Your task to perform on an android device: turn off picture-in-picture Image 0: 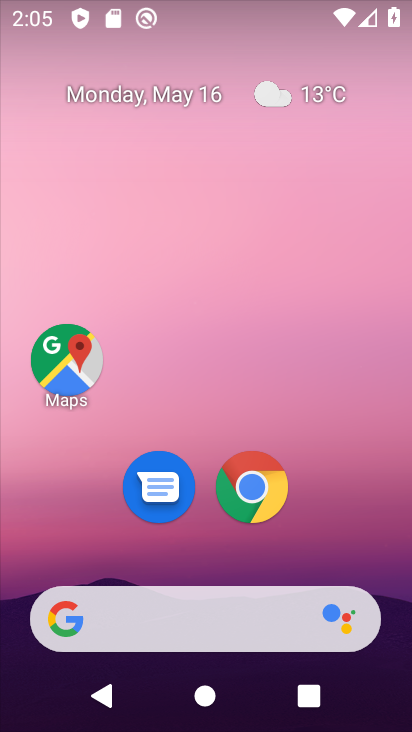
Step 0: drag from (307, 497) to (100, 81)
Your task to perform on an android device: turn off picture-in-picture Image 1: 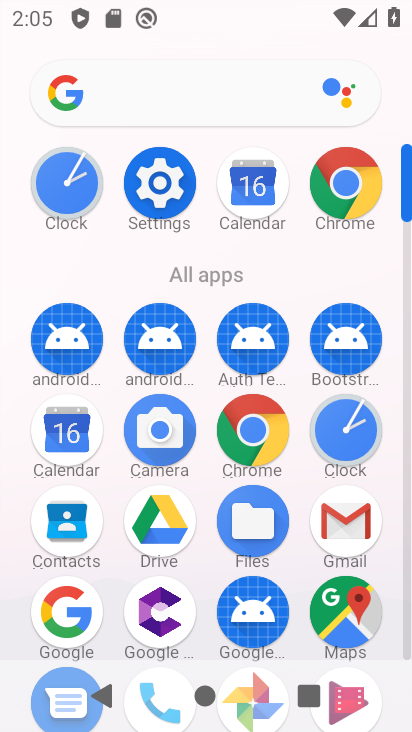
Step 1: click (158, 196)
Your task to perform on an android device: turn off picture-in-picture Image 2: 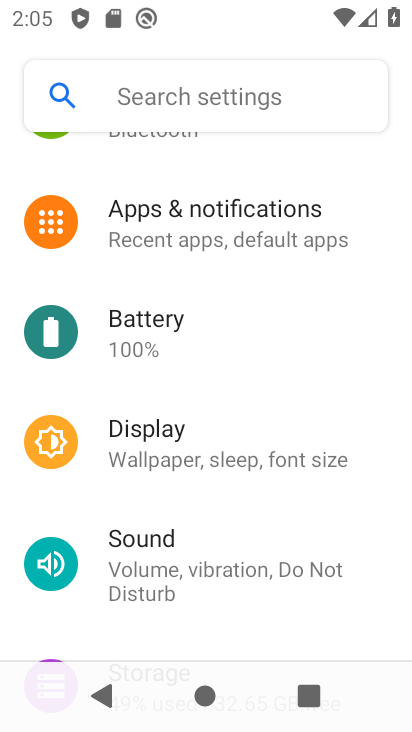
Step 2: click (275, 239)
Your task to perform on an android device: turn off picture-in-picture Image 3: 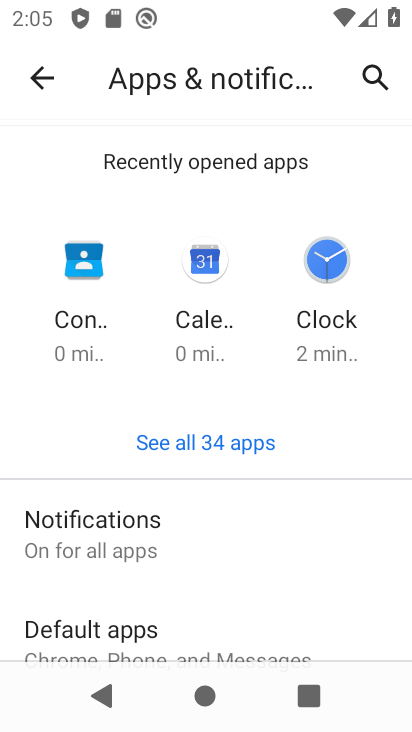
Step 3: click (111, 547)
Your task to perform on an android device: turn off picture-in-picture Image 4: 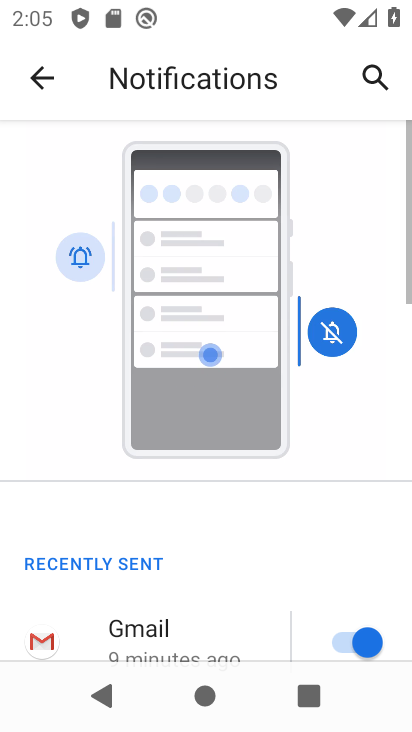
Step 4: drag from (124, 623) to (112, 297)
Your task to perform on an android device: turn off picture-in-picture Image 5: 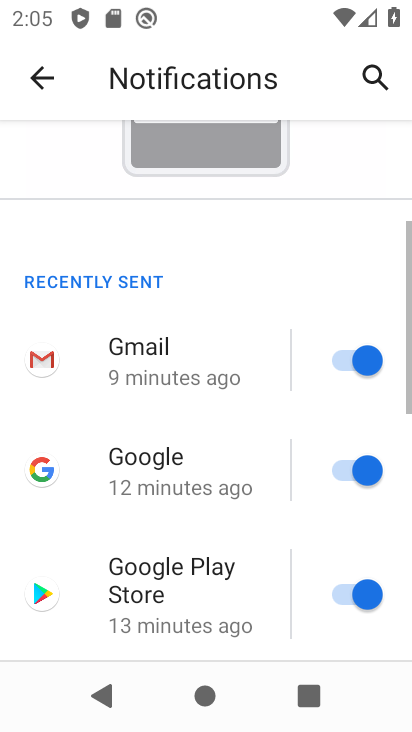
Step 5: drag from (110, 251) to (109, 208)
Your task to perform on an android device: turn off picture-in-picture Image 6: 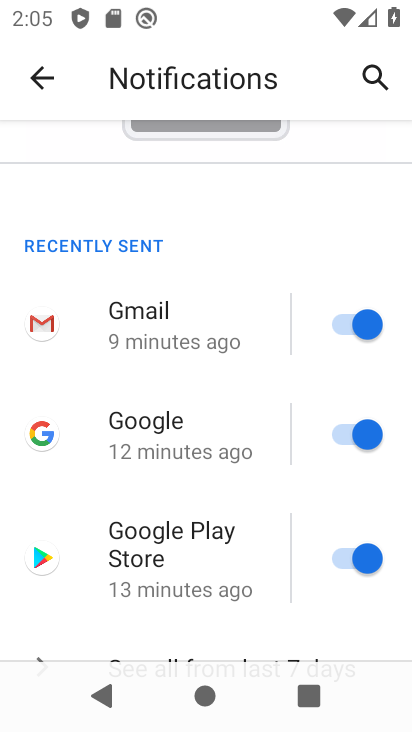
Step 6: drag from (80, 634) to (91, 123)
Your task to perform on an android device: turn off picture-in-picture Image 7: 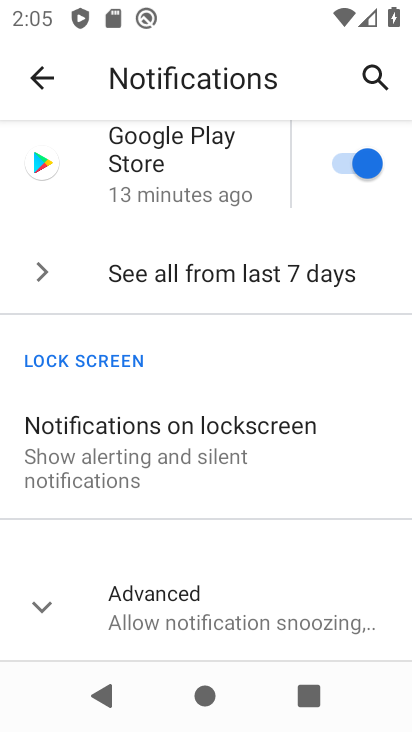
Step 7: click (46, 79)
Your task to perform on an android device: turn off picture-in-picture Image 8: 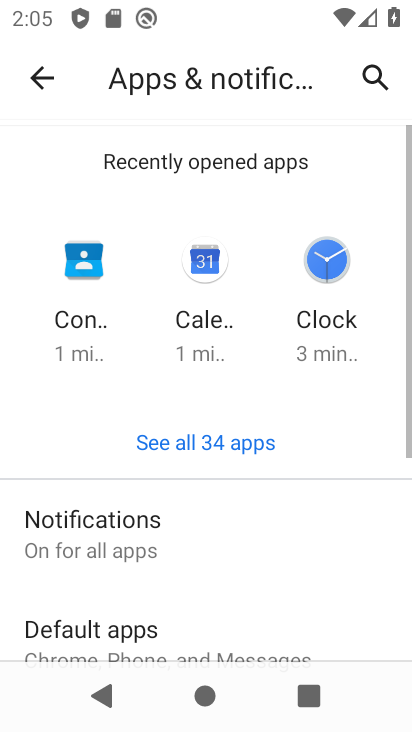
Step 8: drag from (147, 619) to (159, 185)
Your task to perform on an android device: turn off picture-in-picture Image 9: 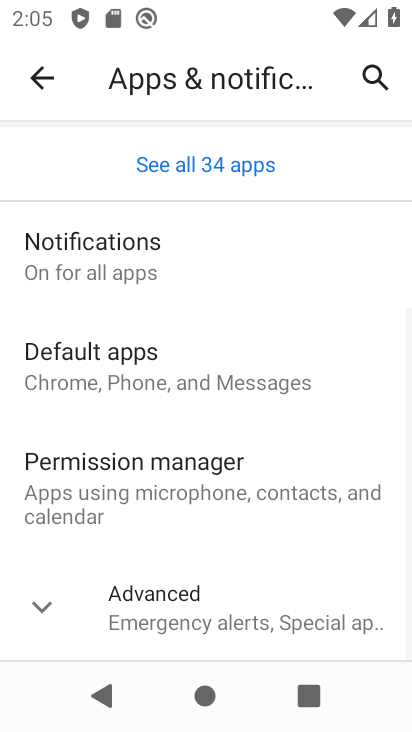
Step 9: click (143, 619)
Your task to perform on an android device: turn off picture-in-picture Image 10: 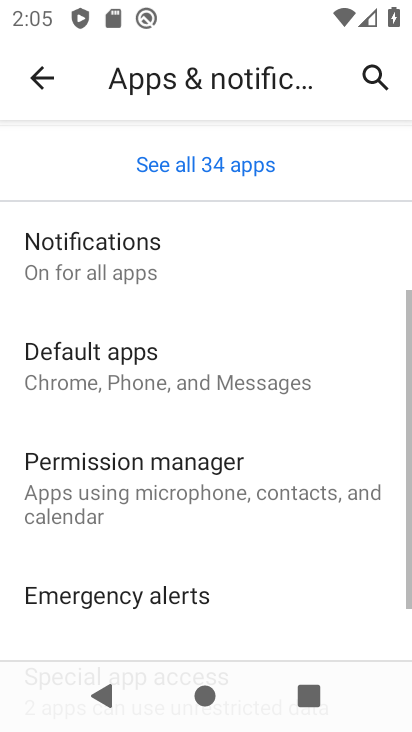
Step 10: drag from (140, 592) to (142, 261)
Your task to perform on an android device: turn off picture-in-picture Image 11: 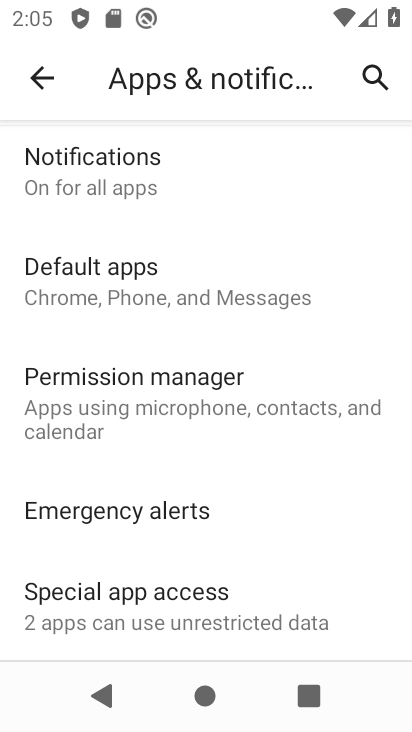
Step 11: click (126, 619)
Your task to perform on an android device: turn off picture-in-picture Image 12: 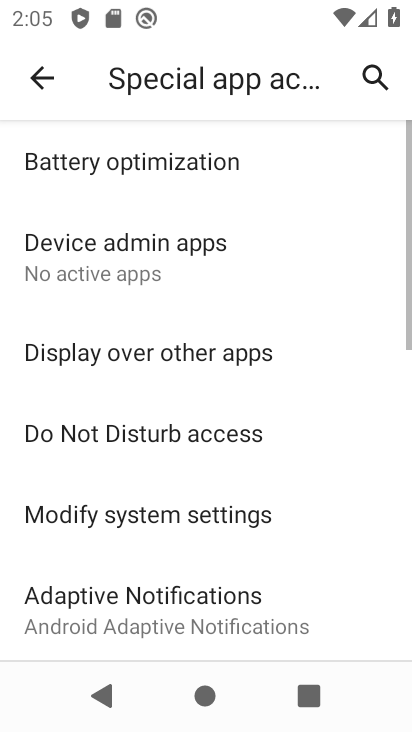
Step 12: drag from (110, 600) to (113, 290)
Your task to perform on an android device: turn off picture-in-picture Image 13: 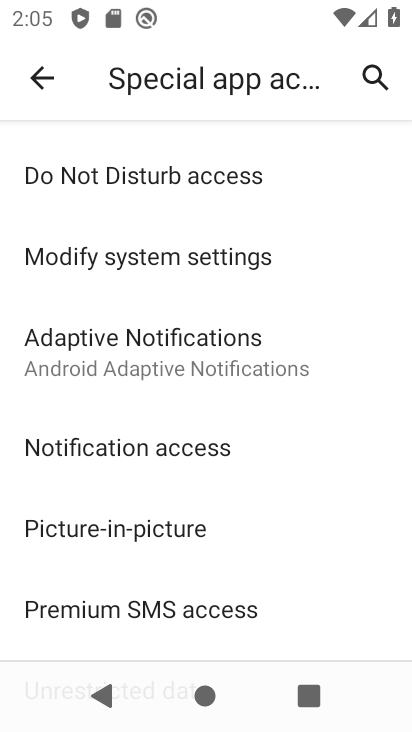
Step 13: click (141, 530)
Your task to perform on an android device: turn off picture-in-picture Image 14: 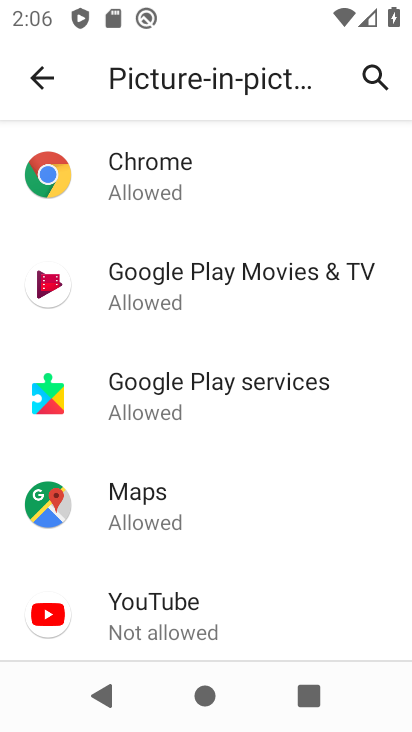
Step 14: click (175, 514)
Your task to perform on an android device: turn off picture-in-picture Image 15: 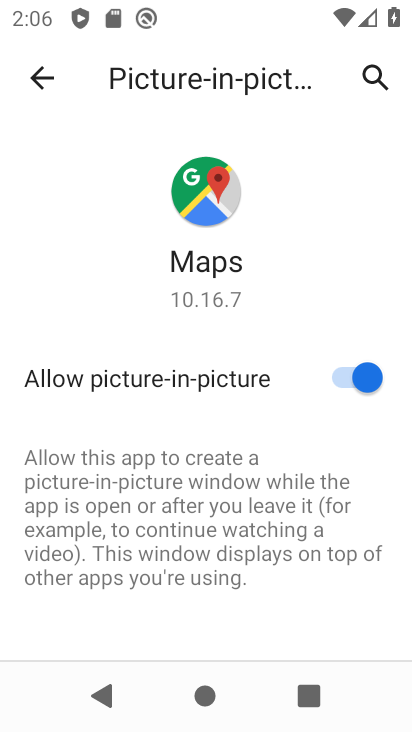
Step 15: click (357, 373)
Your task to perform on an android device: turn off picture-in-picture Image 16: 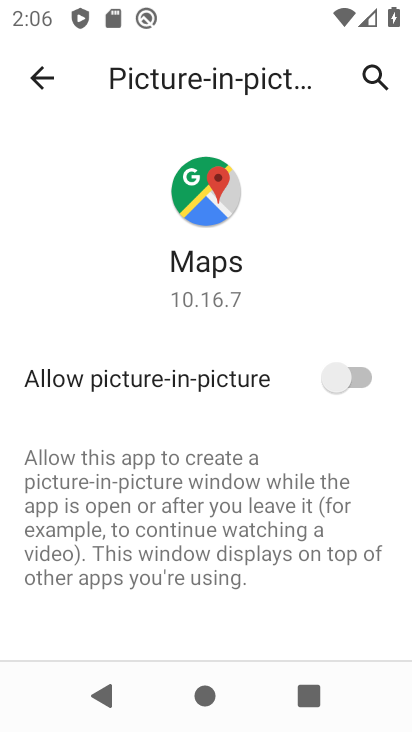
Step 16: task complete